Your task to perform on an android device: move an email to a new category in the gmail app Image 0: 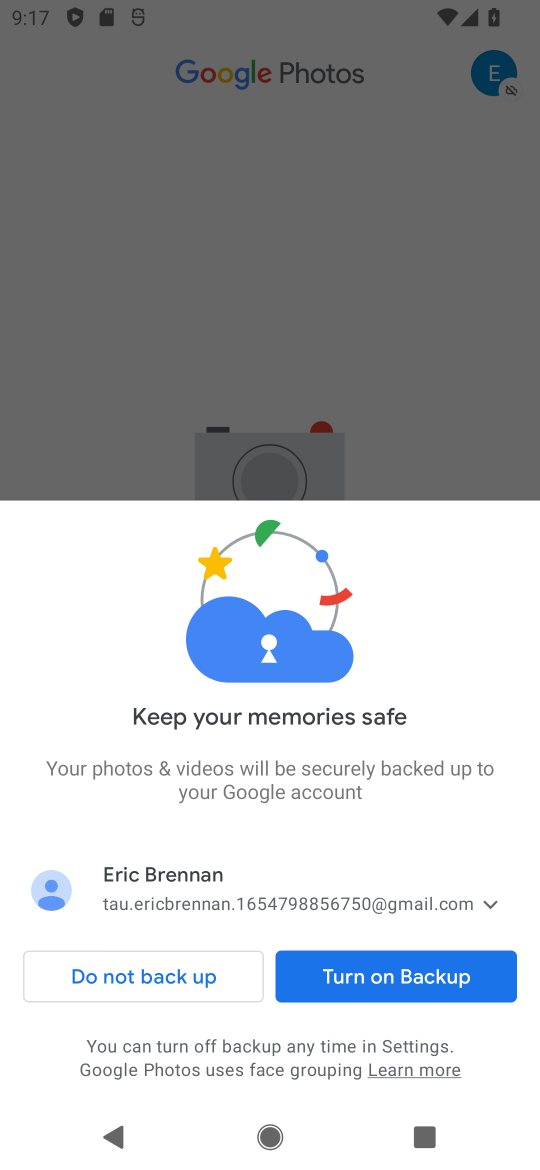
Step 0: press home button
Your task to perform on an android device: move an email to a new category in the gmail app Image 1: 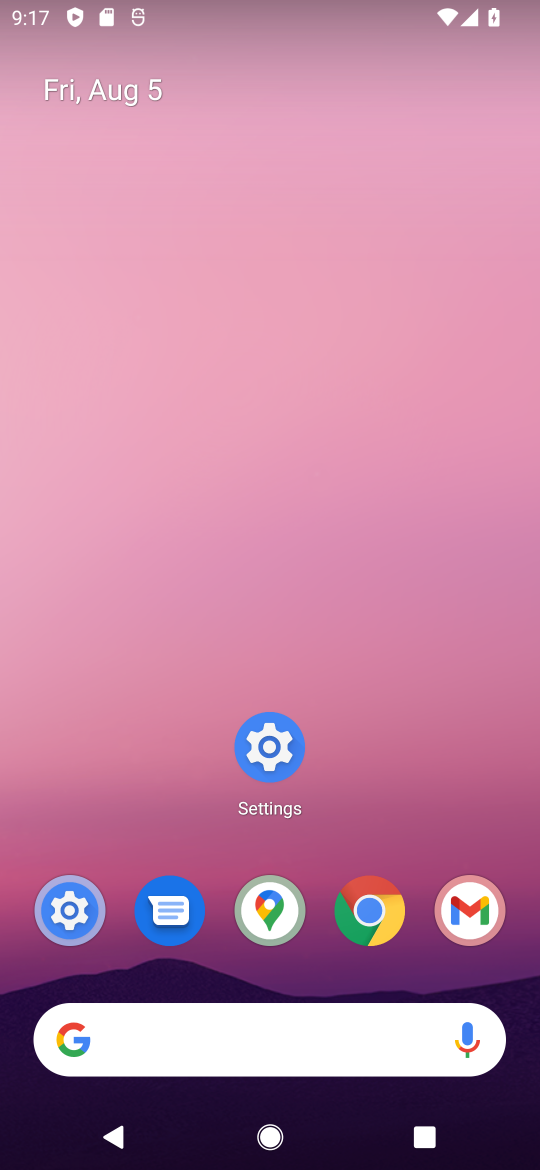
Step 1: click (457, 911)
Your task to perform on an android device: move an email to a new category in the gmail app Image 2: 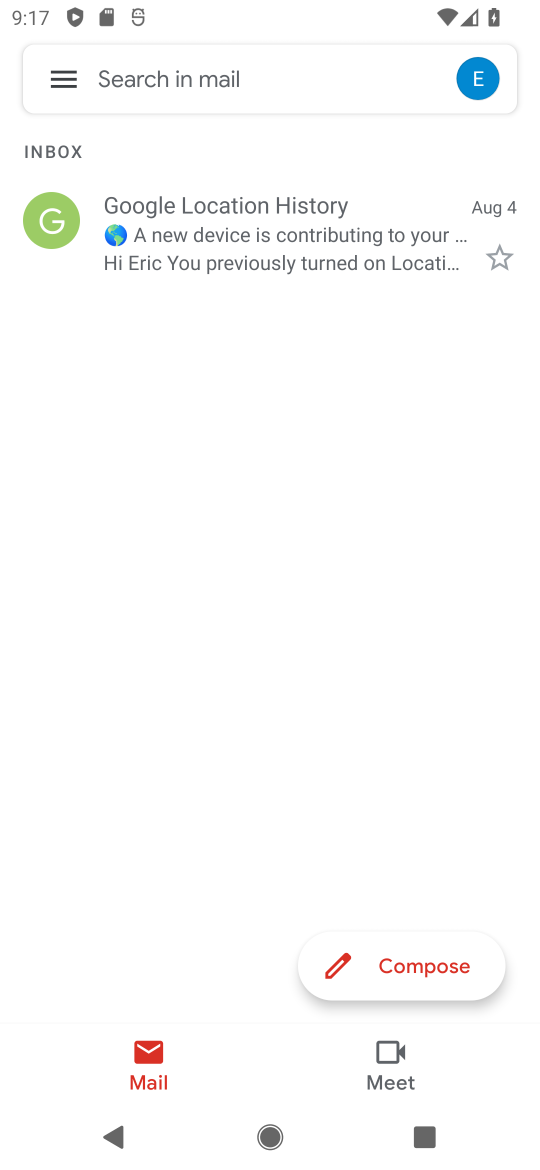
Step 2: click (49, 222)
Your task to perform on an android device: move an email to a new category in the gmail app Image 3: 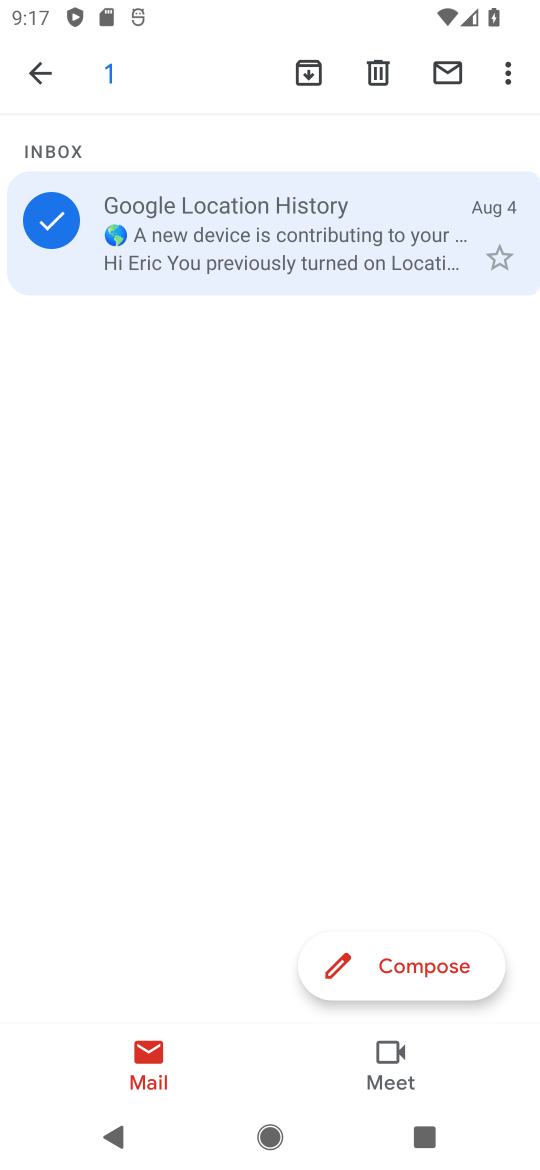
Step 3: click (506, 82)
Your task to perform on an android device: move an email to a new category in the gmail app Image 4: 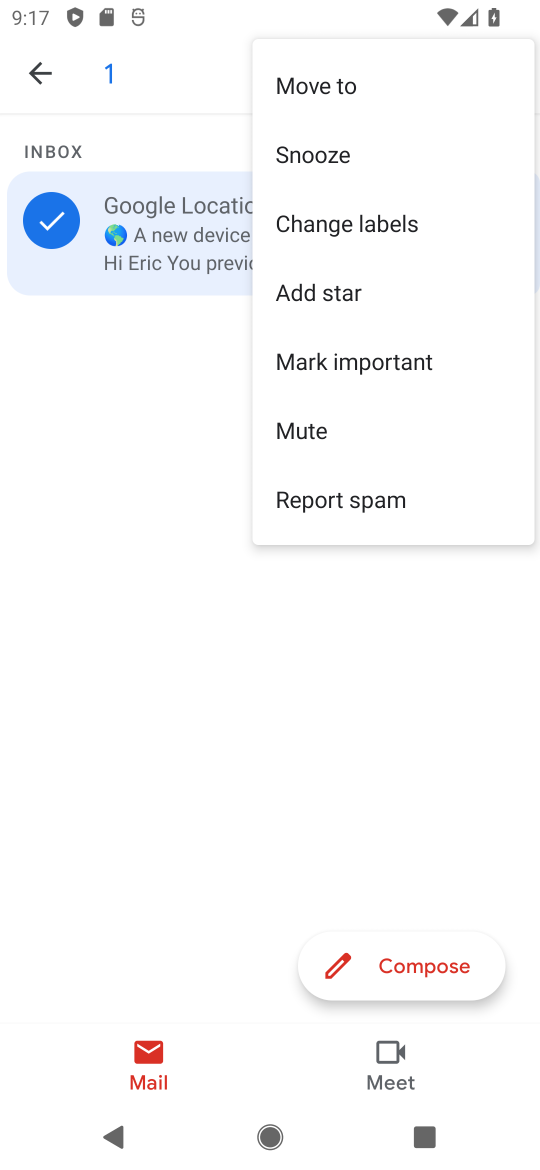
Step 4: click (338, 91)
Your task to perform on an android device: move an email to a new category in the gmail app Image 5: 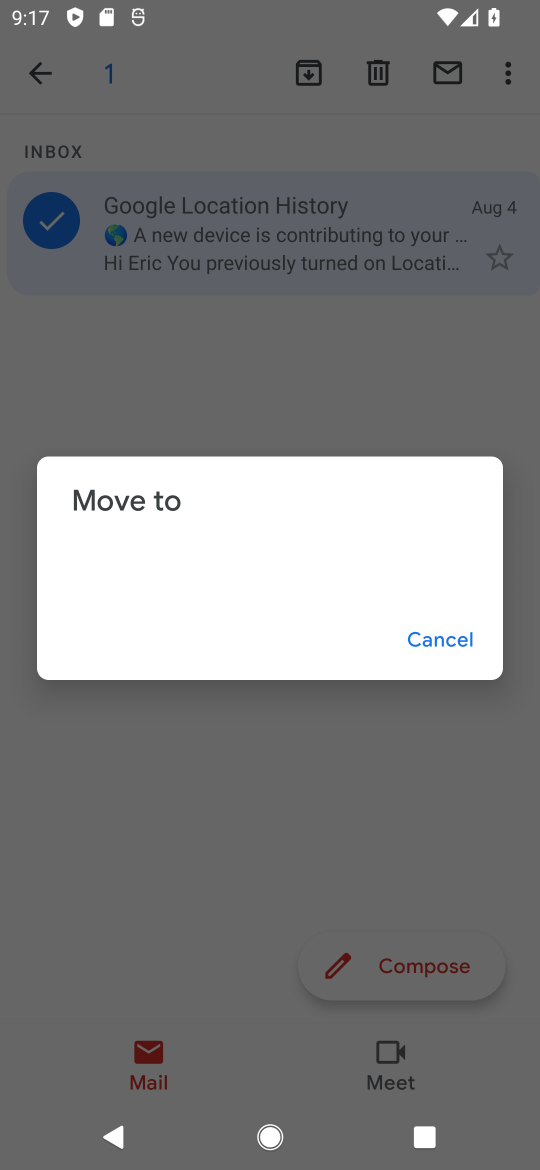
Step 5: click (433, 631)
Your task to perform on an android device: move an email to a new category in the gmail app Image 6: 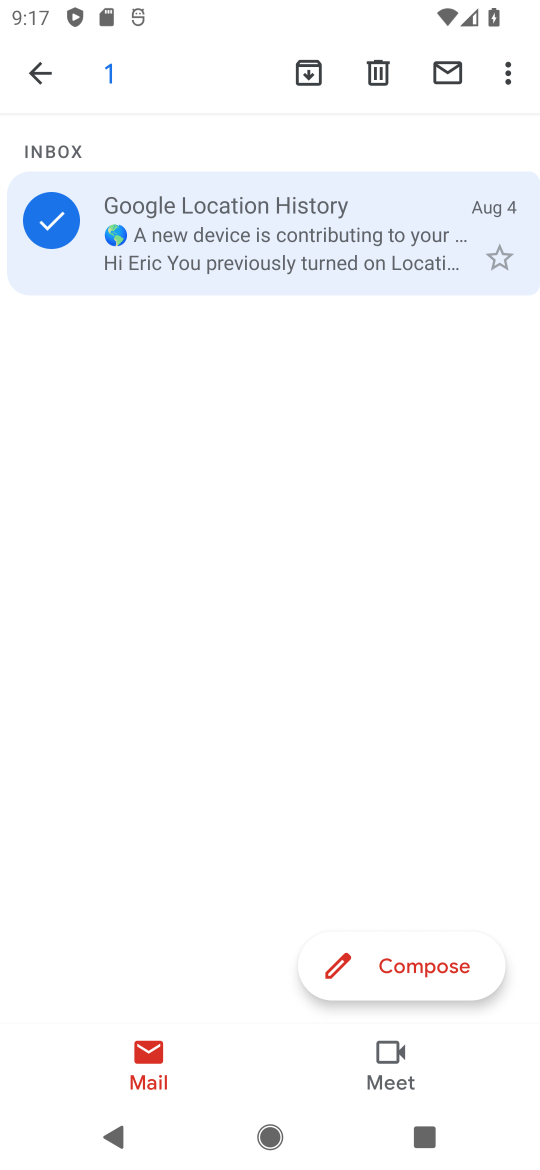
Step 6: click (64, 231)
Your task to perform on an android device: move an email to a new category in the gmail app Image 7: 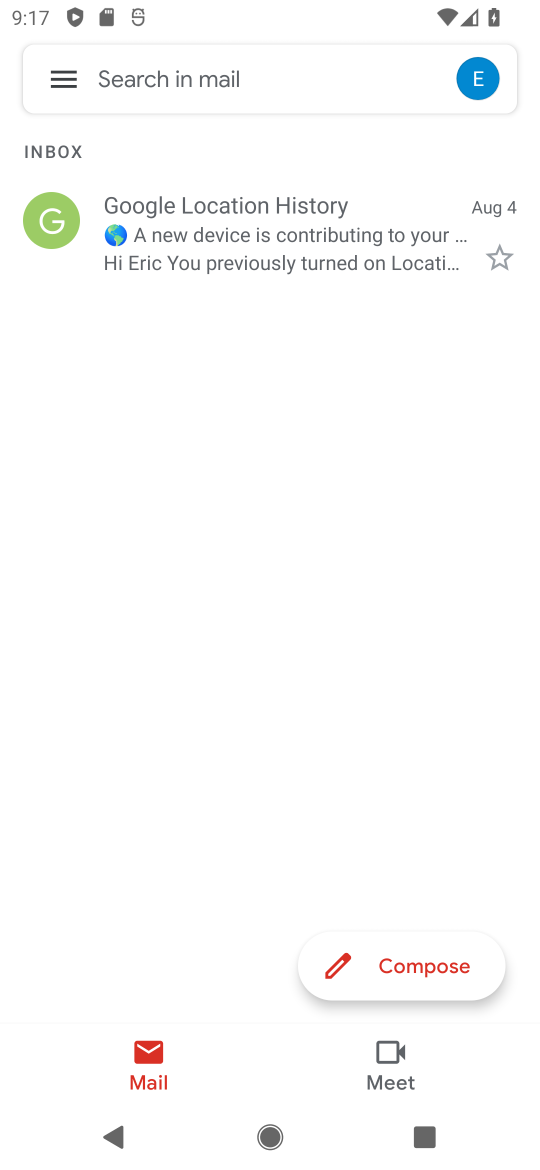
Step 7: task complete